Your task to perform on an android device: Go to Android settings Image 0: 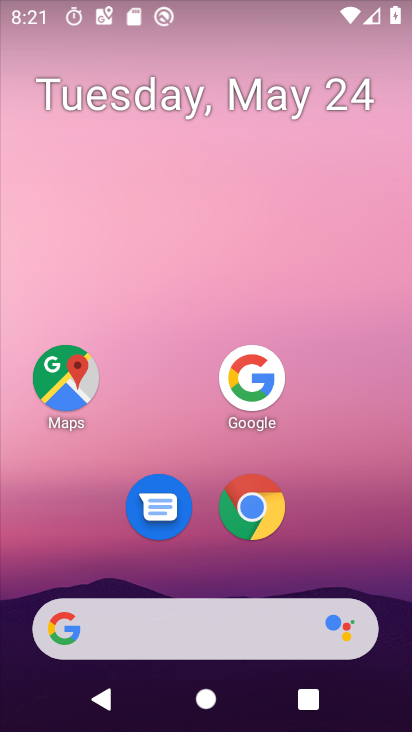
Step 0: press home button
Your task to perform on an android device: Go to Android settings Image 1: 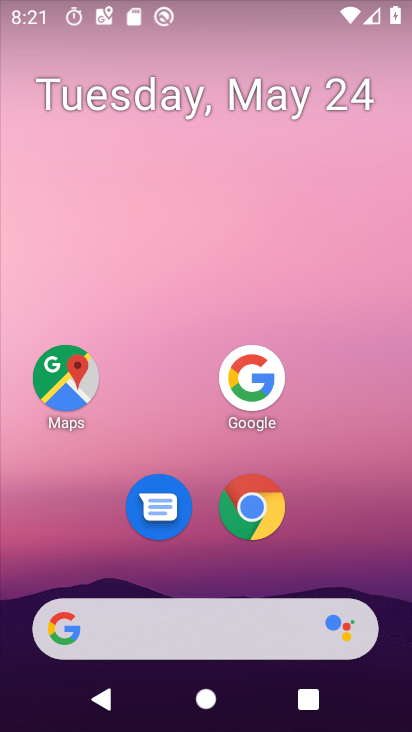
Step 1: drag from (163, 635) to (341, 99)
Your task to perform on an android device: Go to Android settings Image 2: 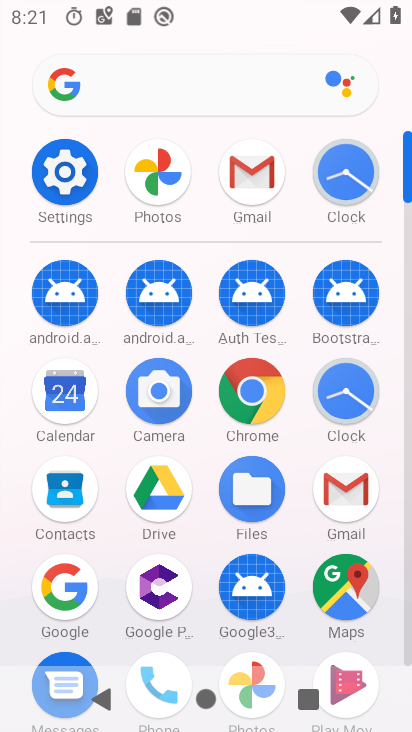
Step 2: click (68, 184)
Your task to perform on an android device: Go to Android settings Image 3: 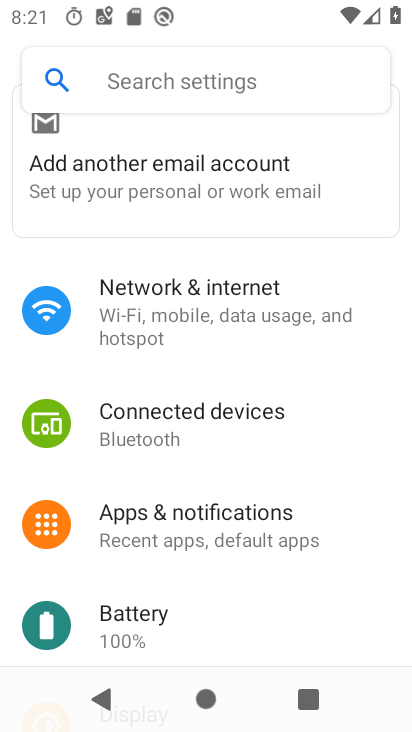
Step 3: task complete